Your task to perform on an android device: Clear the cart on target.com. Add "razer blade" to the cart on target.com, then select checkout. Image 0: 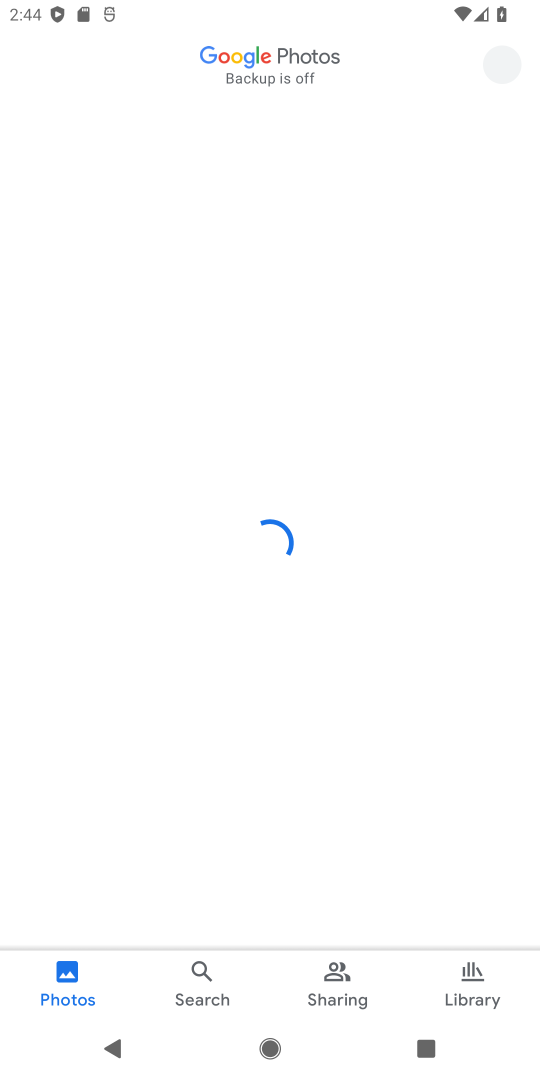
Step 0: press home button
Your task to perform on an android device: Clear the cart on target.com. Add "razer blade" to the cart on target.com, then select checkout. Image 1: 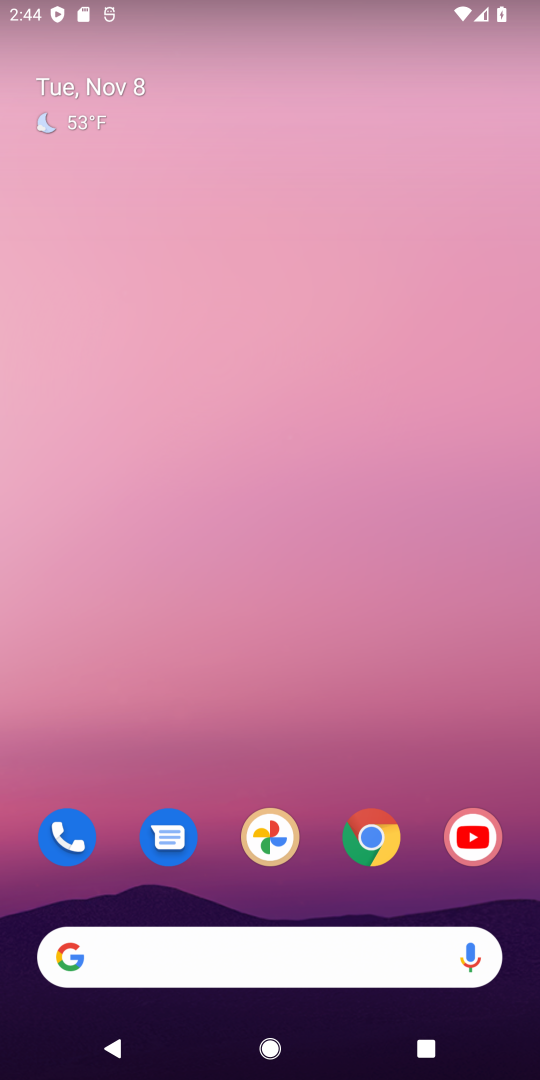
Step 1: click (399, 838)
Your task to perform on an android device: Clear the cart on target.com. Add "razer blade" to the cart on target.com, then select checkout. Image 2: 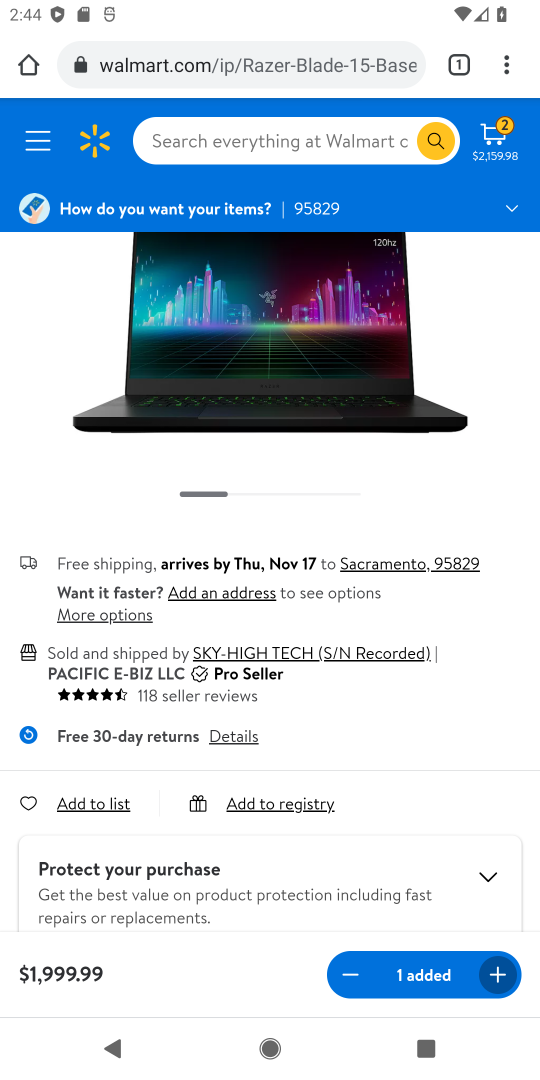
Step 2: click (161, 136)
Your task to perform on an android device: Clear the cart on target.com. Add "razer blade" to the cart on target.com, then select checkout. Image 3: 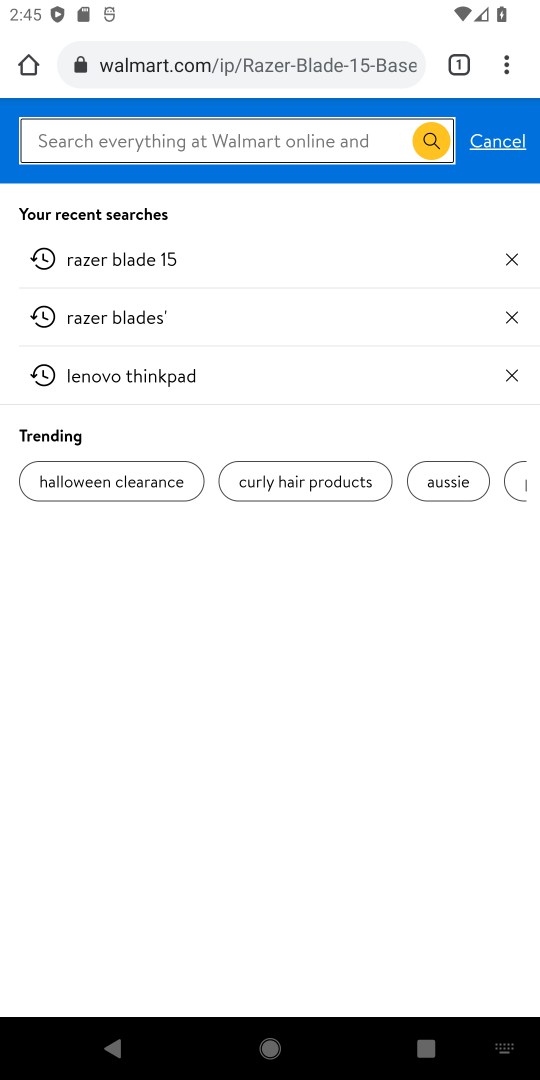
Step 3: click (163, 69)
Your task to perform on an android device: Clear the cart on target.com. Add "razer blade" to the cart on target.com, then select checkout. Image 4: 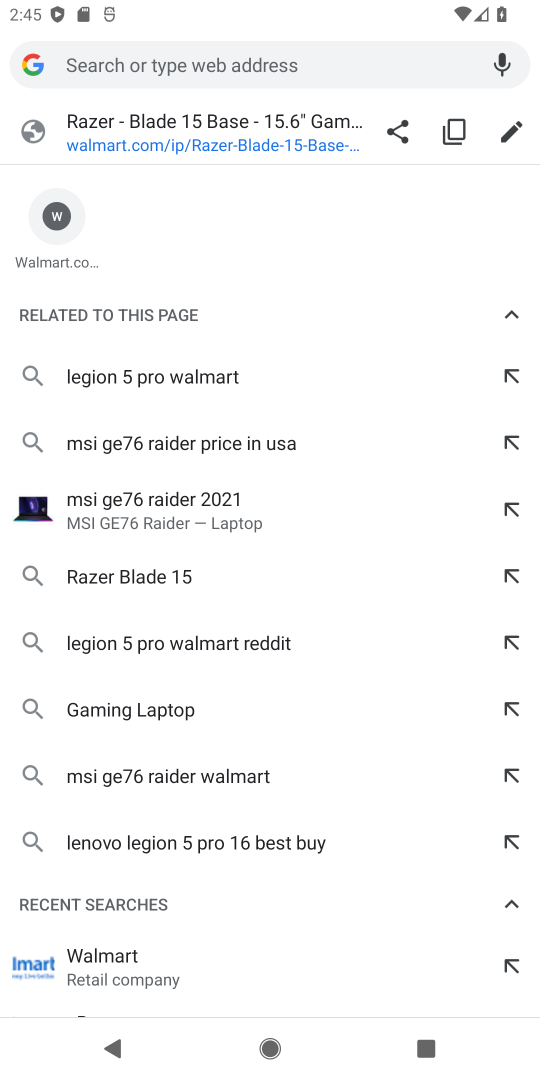
Step 4: type "target "
Your task to perform on an android device: Clear the cart on target.com. Add "razer blade" to the cart on target.com, then select checkout. Image 5: 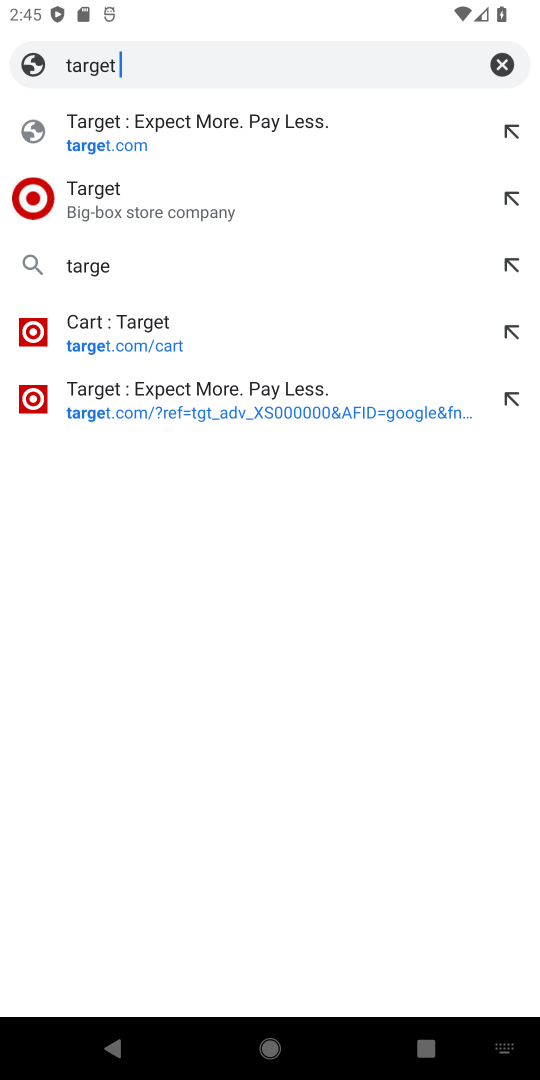
Step 5: type ""
Your task to perform on an android device: Clear the cart on target.com. Add "razer blade" to the cart on target.com, then select checkout. Image 6: 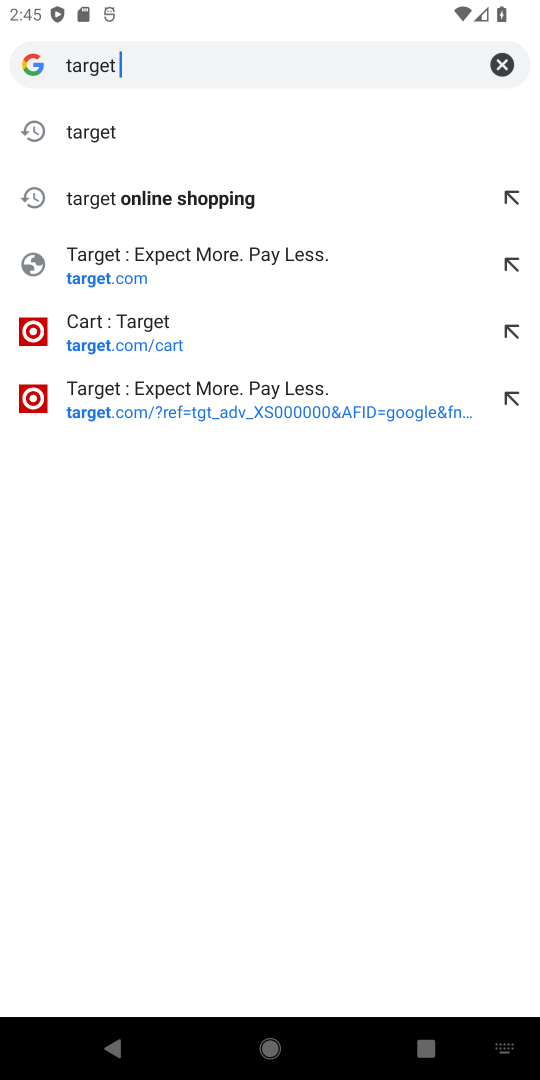
Step 6: click (122, 255)
Your task to perform on an android device: Clear the cart on target.com. Add "razer blade" to the cart on target.com, then select checkout. Image 7: 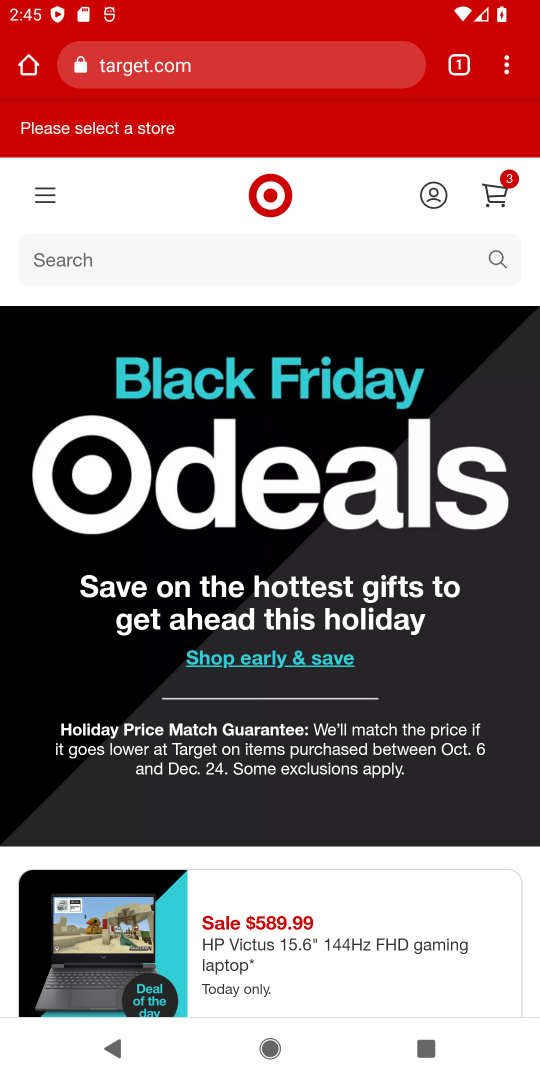
Step 7: click (164, 276)
Your task to perform on an android device: Clear the cart on target.com. Add "razer blade" to the cart on target.com, then select checkout. Image 8: 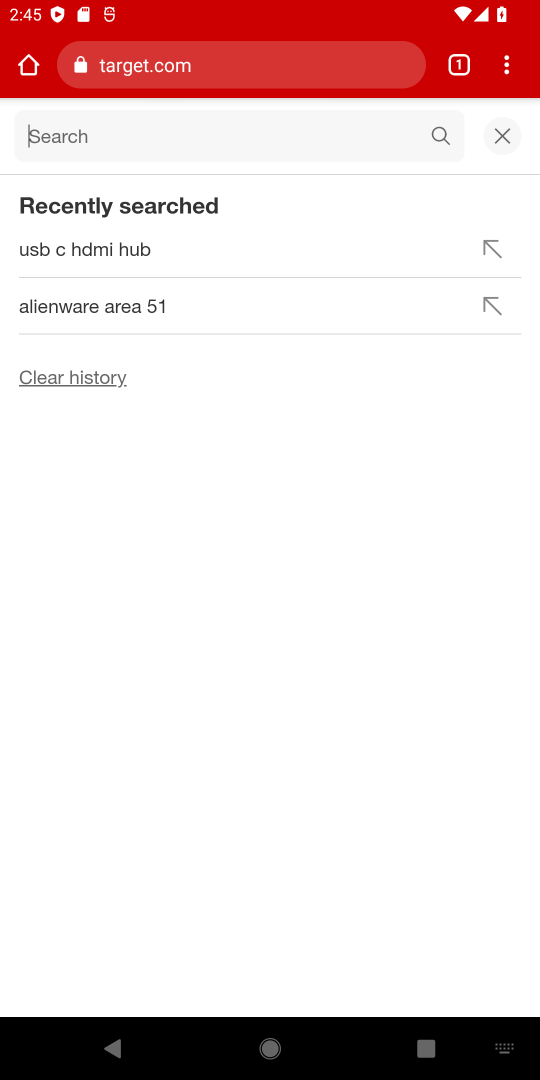
Step 8: type "razer blade"
Your task to perform on an android device: Clear the cart on target.com. Add "razer blade" to the cart on target.com, then select checkout. Image 9: 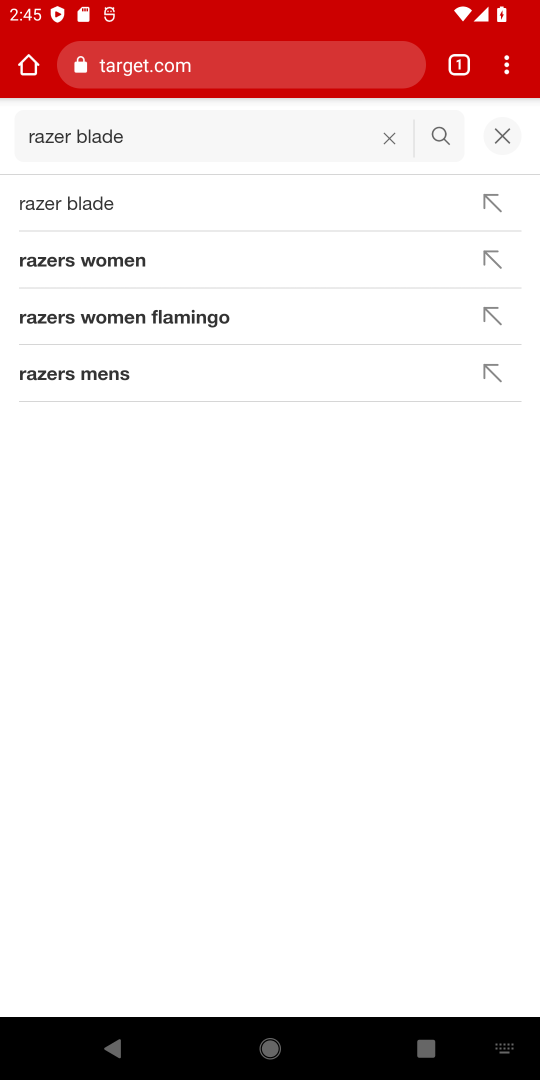
Step 9: click (105, 199)
Your task to perform on an android device: Clear the cart on target.com. Add "razer blade" to the cart on target.com, then select checkout. Image 10: 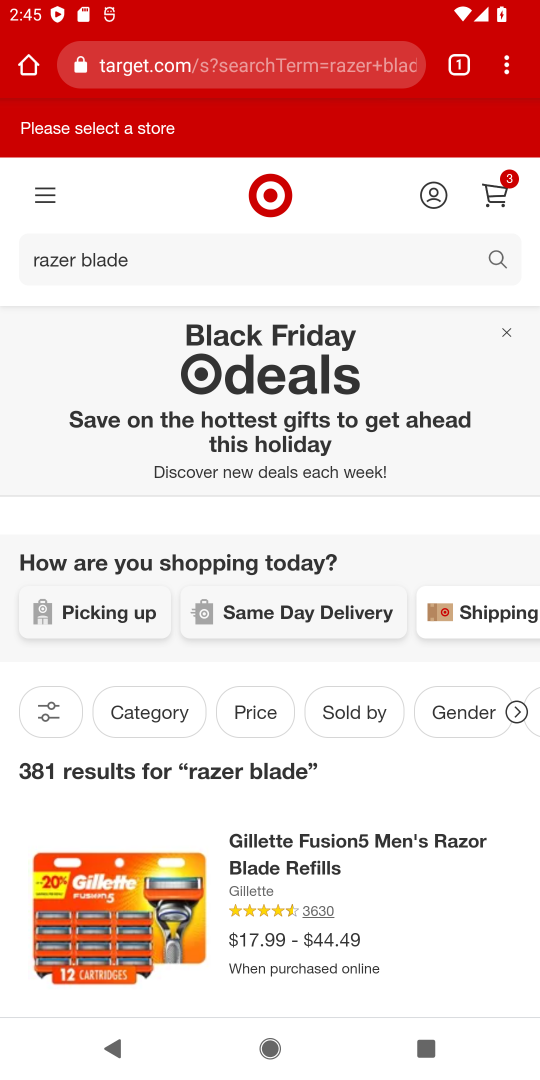
Step 10: drag from (258, 919) to (440, 194)
Your task to perform on an android device: Clear the cart on target.com. Add "razer blade" to the cart on target.com, then select checkout. Image 11: 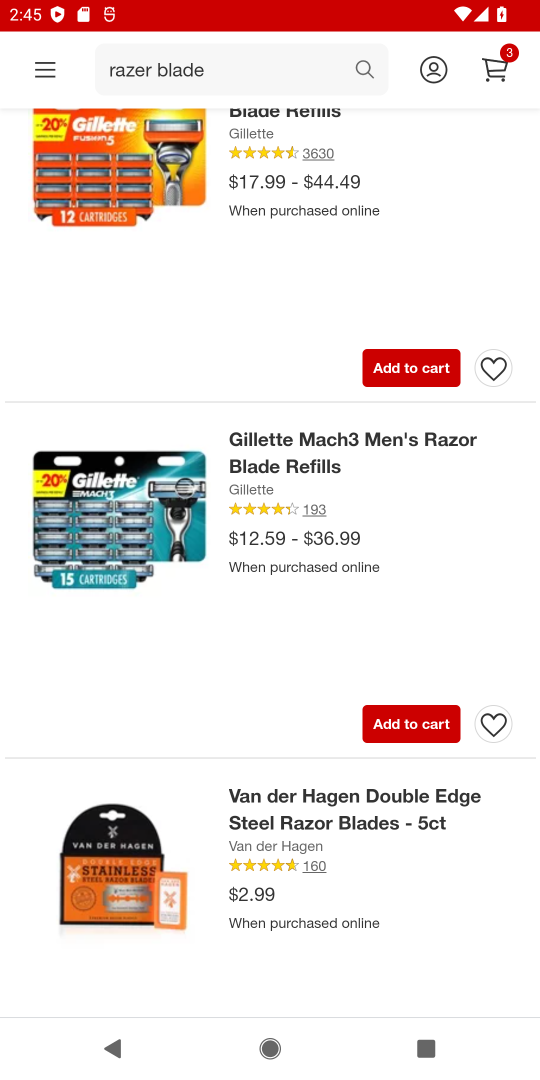
Step 11: click (265, 441)
Your task to perform on an android device: Clear the cart on target.com. Add "razer blade" to the cart on target.com, then select checkout. Image 12: 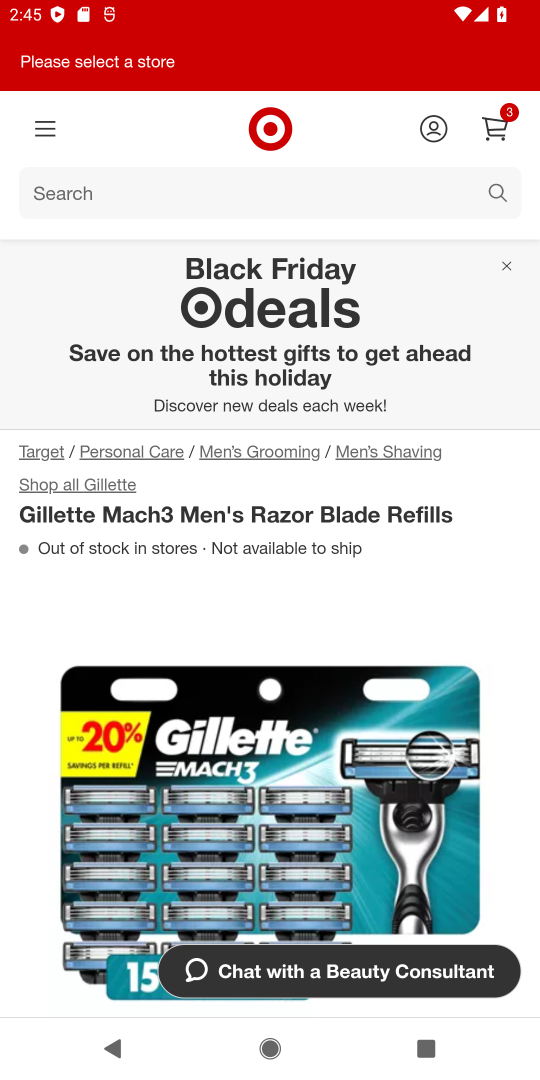
Step 12: drag from (300, 822) to (429, 15)
Your task to perform on an android device: Clear the cart on target.com. Add "razer blade" to the cart on target.com, then select checkout. Image 13: 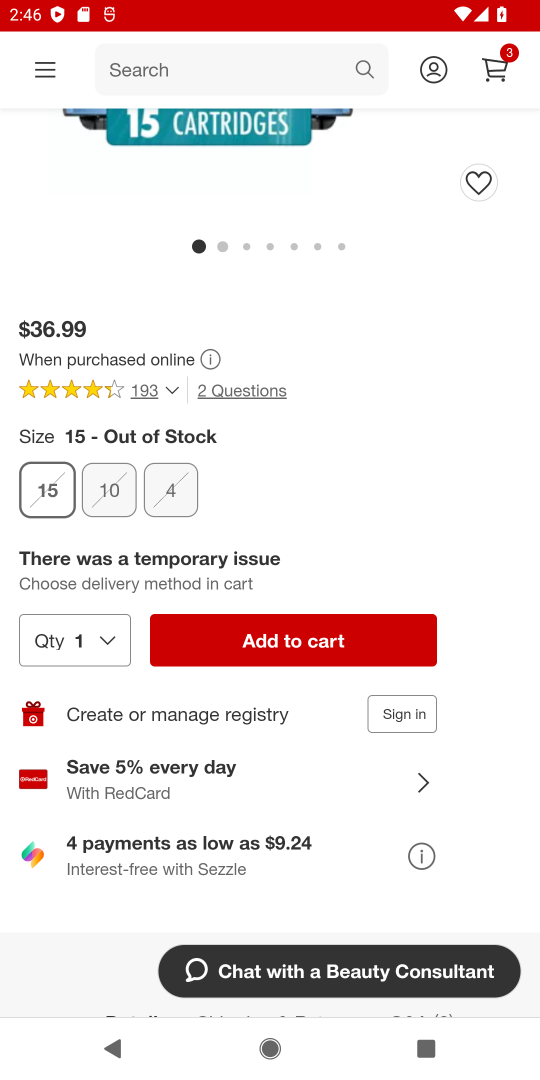
Step 13: click (348, 638)
Your task to perform on an android device: Clear the cart on target.com. Add "razer blade" to the cart on target.com, then select checkout. Image 14: 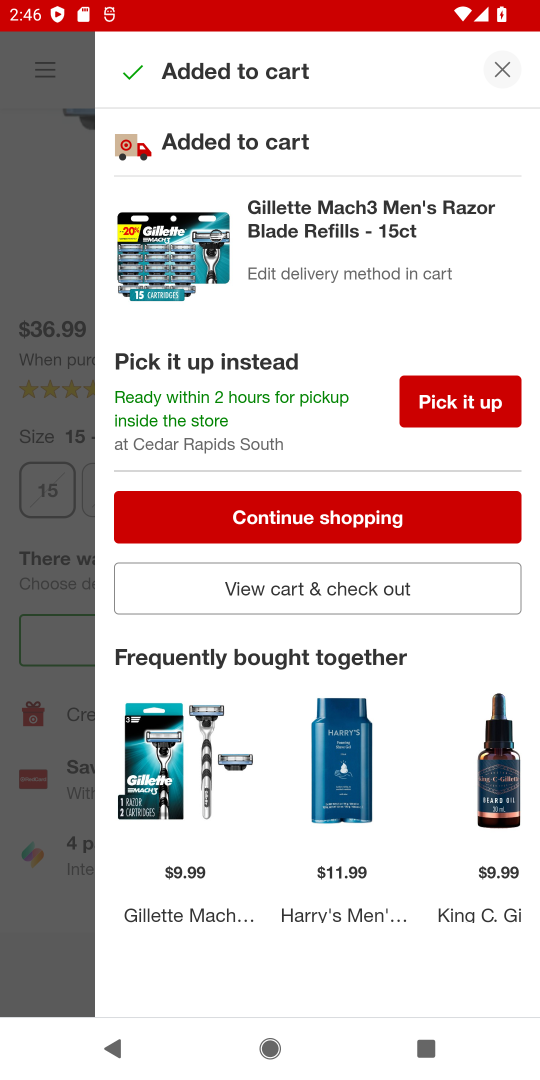
Step 14: click (250, 595)
Your task to perform on an android device: Clear the cart on target.com. Add "razer blade" to the cart on target.com, then select checkout. Image 15: 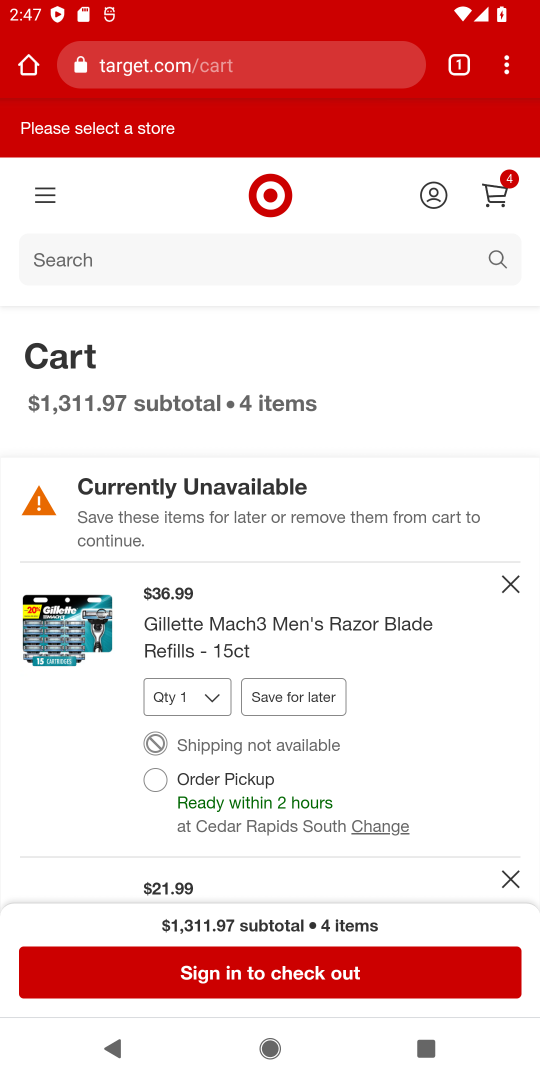
Step 15: click (339, 983)
Your task to perform on an android device: Clear the cart on target.com. Add "razer blade" to the cart on target.com, then select checkout. Image 16: 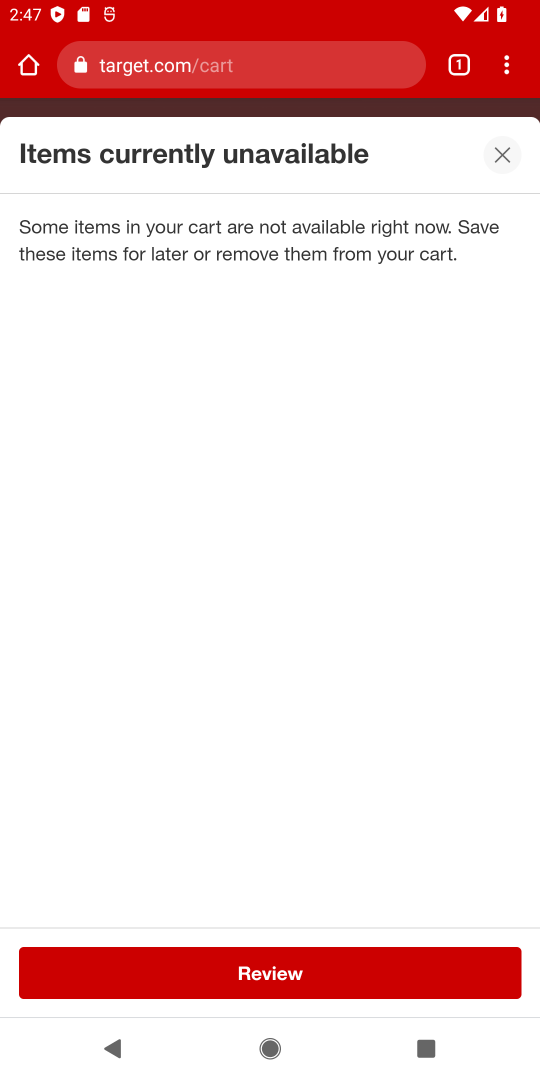
Step 16: click (507, 153)
Your task to perform on an android device: Clear the cart on target.com. Add "razer blade" to the cart on target.com, then select checkout. Image 17: 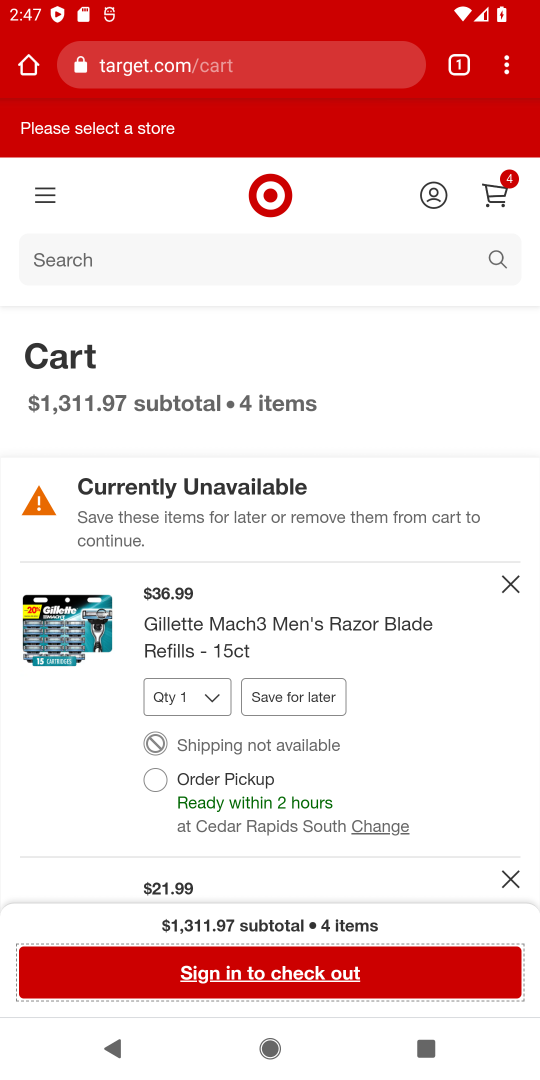
Step 17: click (313, 974)
Your task to perform on an android device: Clear the cart on target.com. Add "razer blade" to the cart on target.com, then select checkout. Image 18: 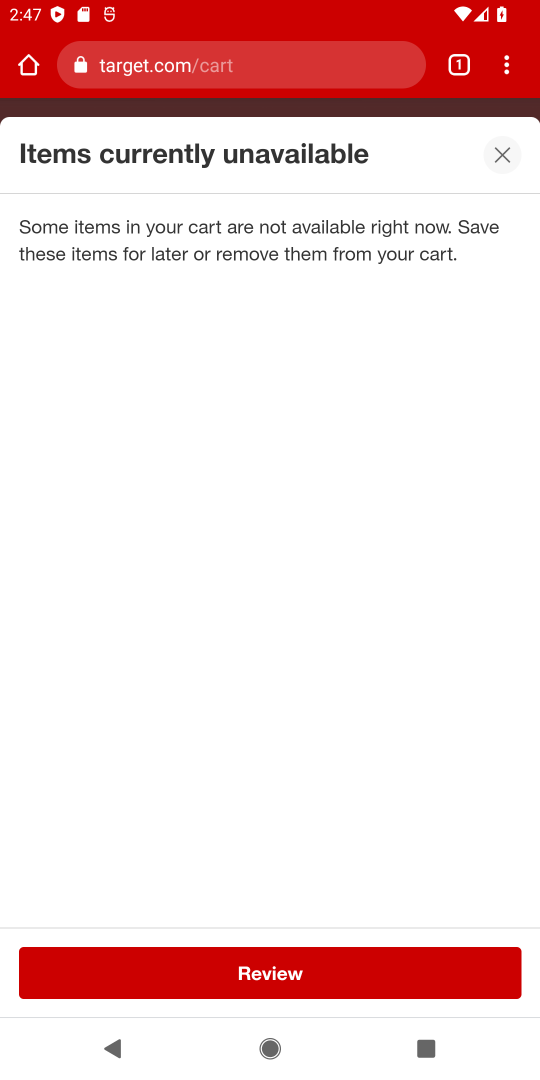
Step 18: task complete